Your task to perform on an android device: Play the last video I watched on Youtube Image 0: 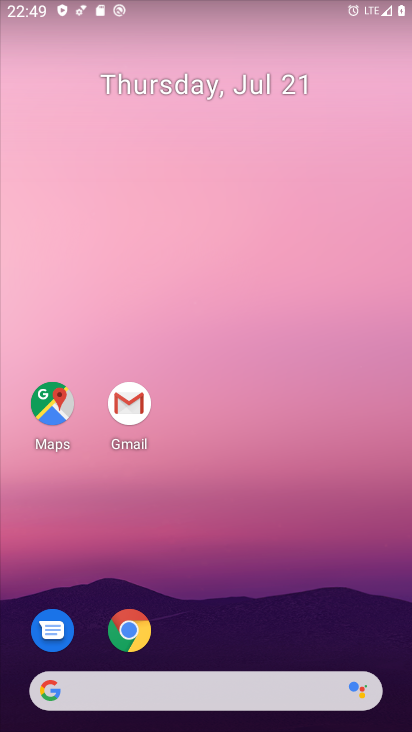
Step 0: drag from (221, 584) to (171, 141)
Your task to perform on an android device: Play the last video I watched on Youtube Image 1: 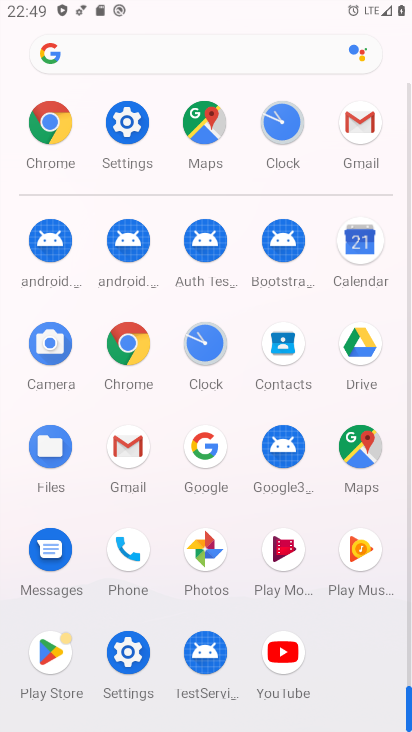
Step 1: click (264, 646)
Your task to perform on an android device: Play the last video I watched on Youtube Image 2: 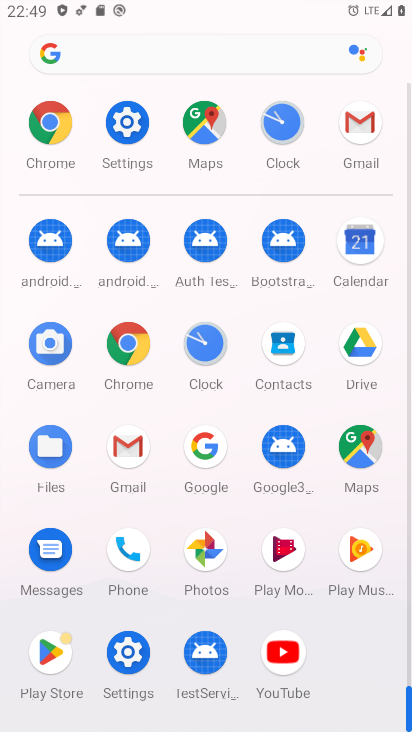
Step 2: click (272, 649)
Your task to perform on an android device: Play the last video I watched on Youtube Image 3: 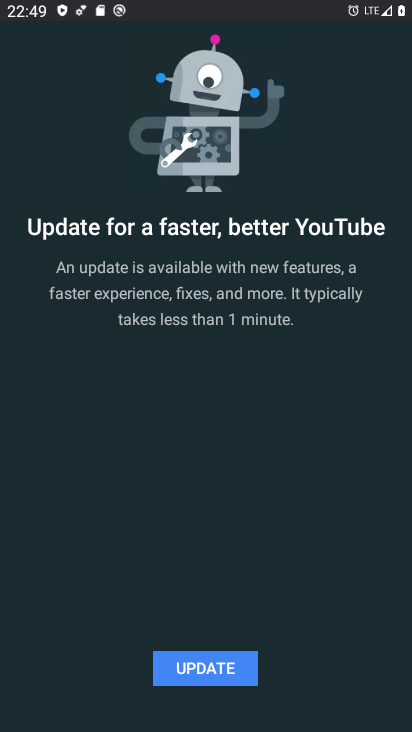
Step 3: click (203, 667)
Your task to perform on an android device: Play the last video I watched on Youtube Image 4: 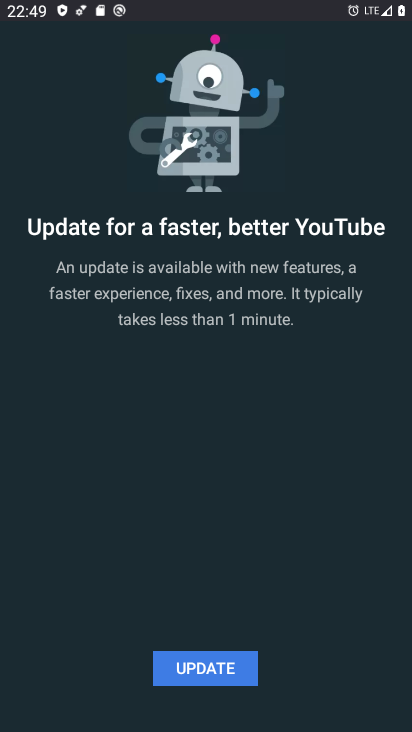
Step 4: click (203, 667)
Your task to perform on an android device: Play the last video I watched on Youtube Image 5: 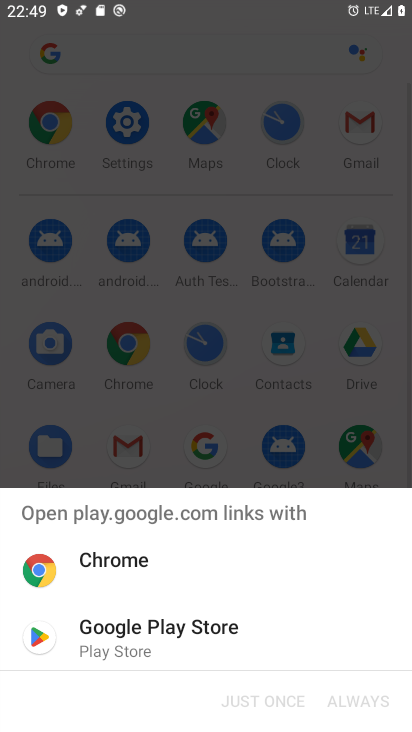
Step 5: click (108, 643)
Your task to perform on an android device: Play the last video I watched on Youtube Image 6: 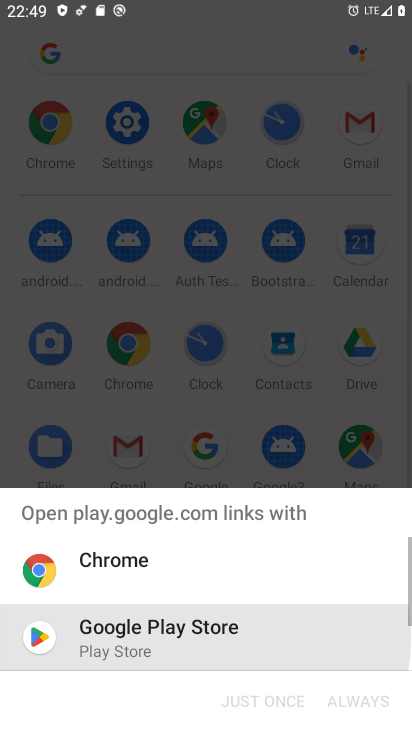
Step 6: click (113, 645)
Your task to perform on an android device: Play the last video I watched on Youtube Image 7: 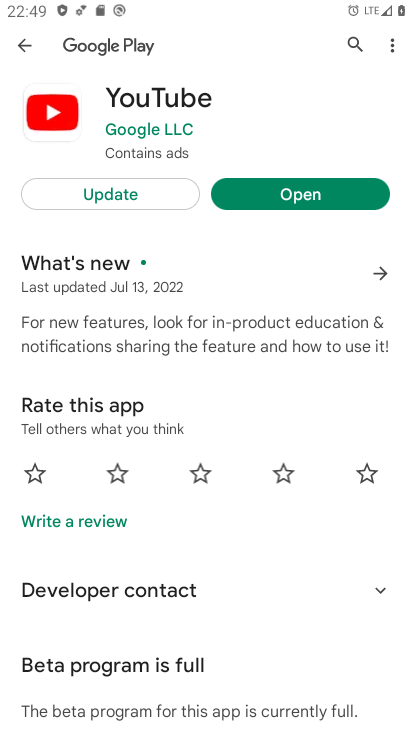
Step 7: click (92, 186)
Your task to perform on an android device: Play the last video I watched on Youtube Image 8: 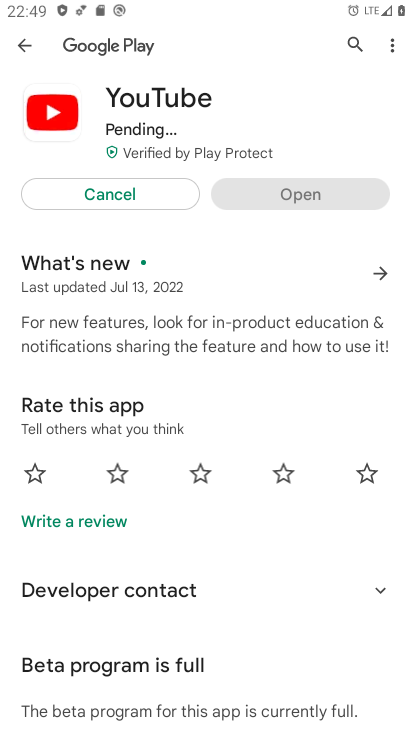
Step 8: click (334, 193)
Your task to perform on an android device: Play the last video I watched on Youtube Image 9: 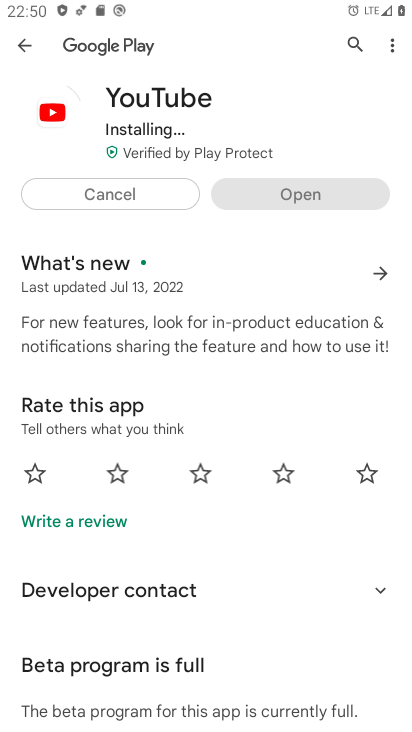
Step 9: click (347, 197)
Your task to perform on an android device: Play the last video I watched on Youtube Image 10: 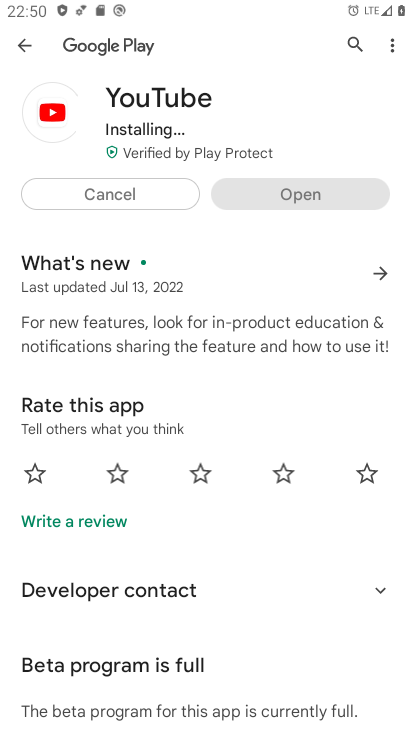
Step 10: click (347, 197)
Your task to perform on an android device: Play the last video I watched on Youtube Image 11: 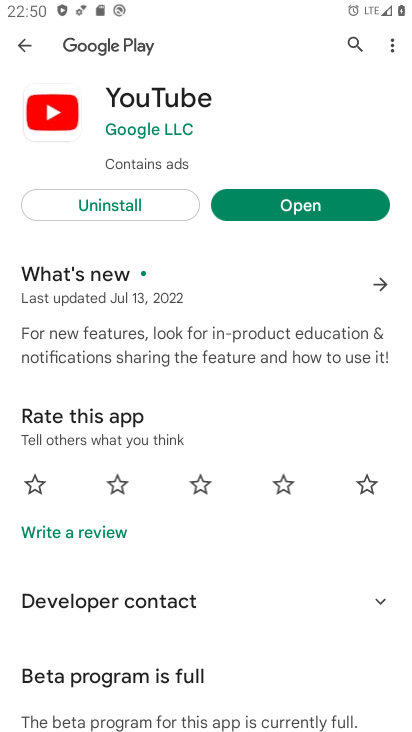
Step 11: click (317, 198)
Your task to perform on an android device: Play the last video I watched on Youtube Image 12: 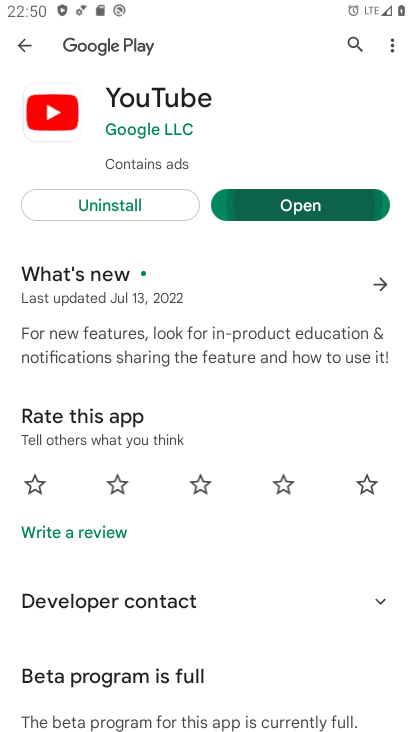
Step 12: click (318, 199)
Your task to perform on an android device: Play the last video I watched on Youtube Image 13: 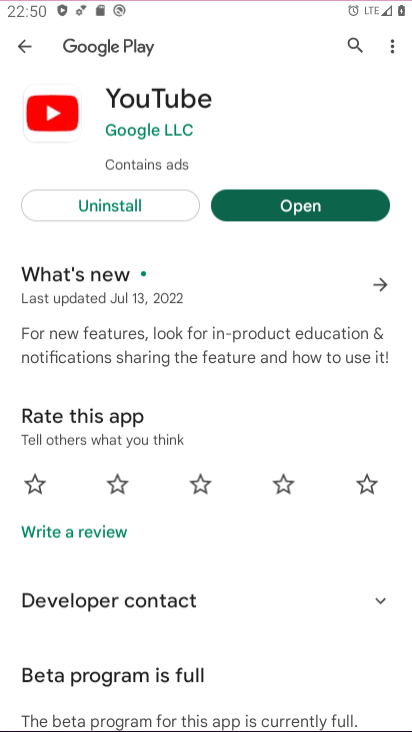
Step 13: click (318, 199)
Your task to perform on an android device: Play the last video I watched on Youtube Image 14: 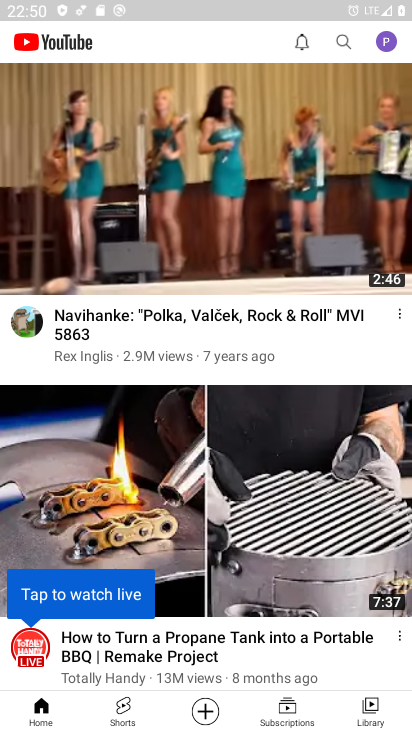
Step 14: task complete